Your task to perform on an android device: find photos in the google photos app Image 0: 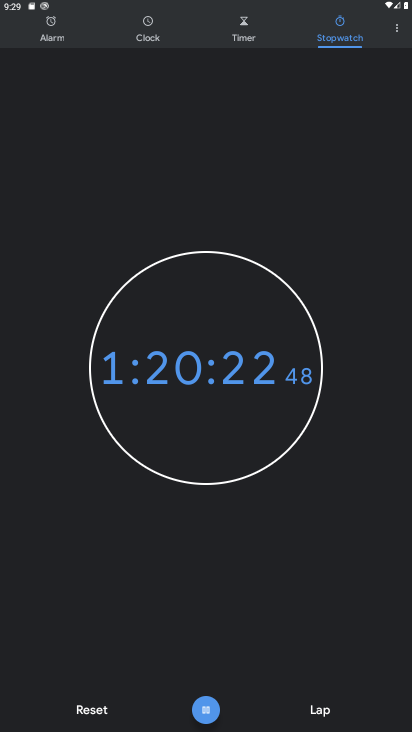
Step 0: press home button
Your task to perform on an android device: find photos in the google photos app Image 1: 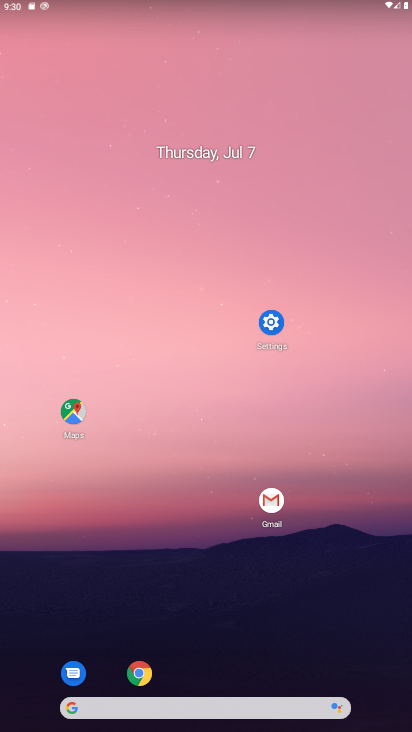
Step 1: drag from (392, 534) to (400, 88)
Your task to perform on an android device: find photos in the google photos app Image 2: 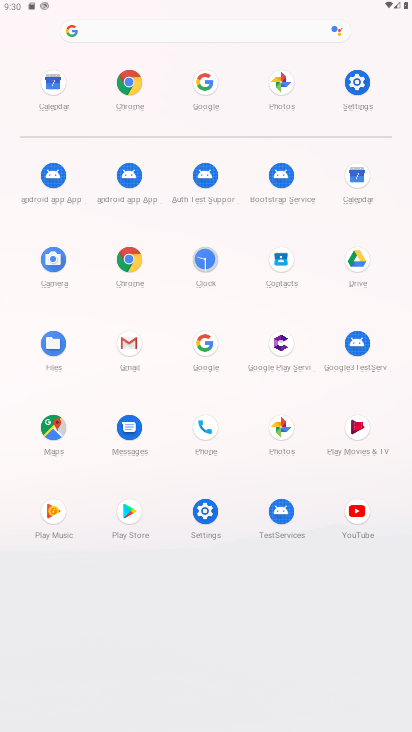
Step 2: click (286, 424)
Your task to perform on an android device: find photos in the google photos app Image 3: 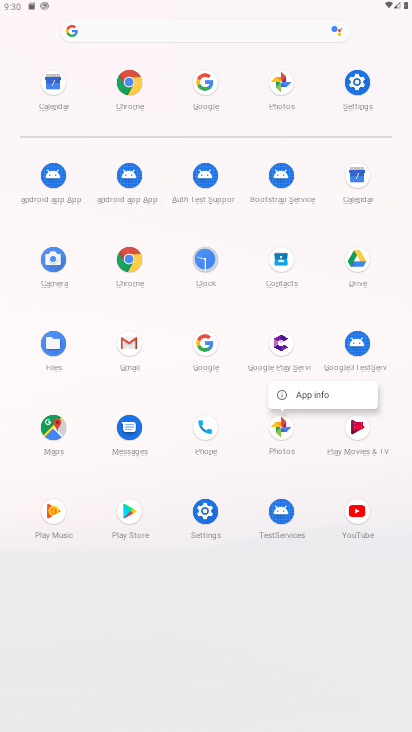
Step 3: click (280, 427)
Your task to perform on an android device: find photos in the google photos app Image 4: 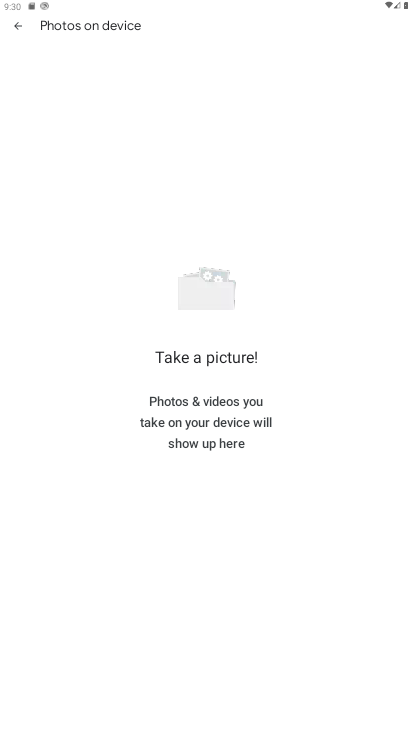
Step 4: click (17, 25)
Your task to perform on an android device: find photos in the google photos app Image 5: 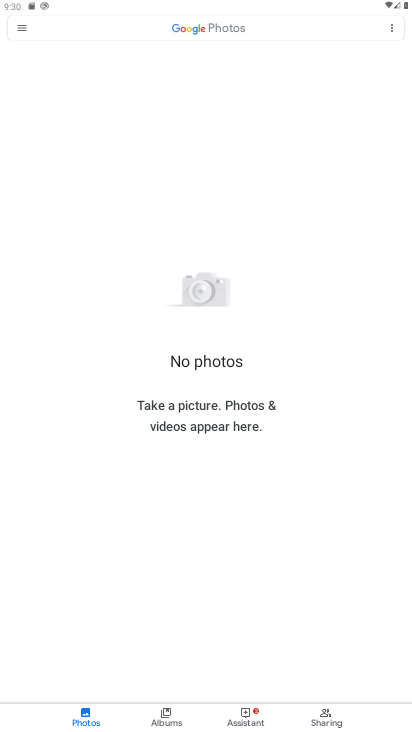
Step 5: click (17, 25)
Your task to perform on an android device: find photos in the google photos app Image 6: 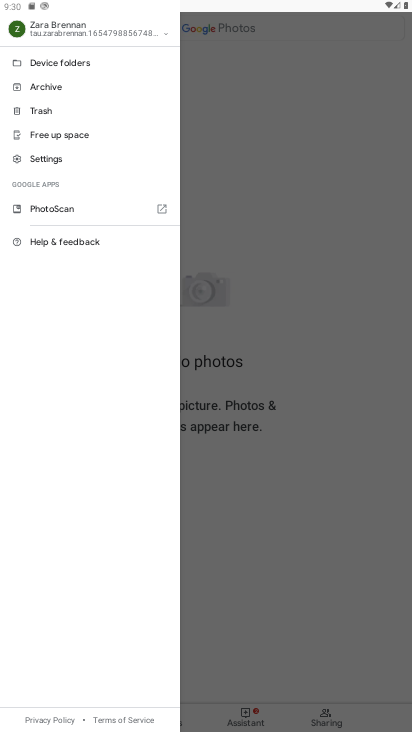
Step 6: click (286, 174)
Your task to perform on an android device: find photos in the google photos app Image 7: 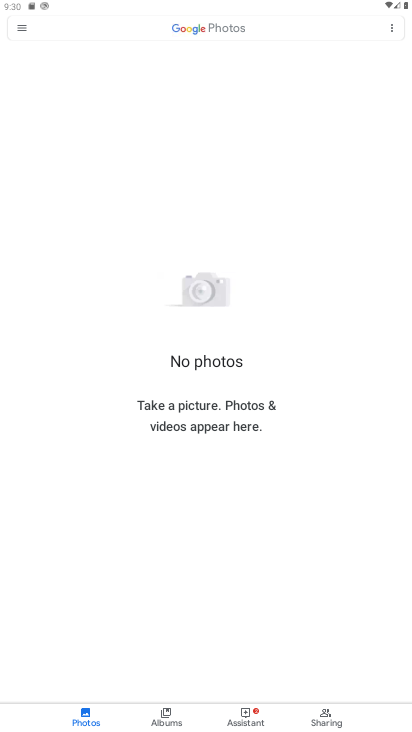
Step 7: click (74, 716)
Your task to perform on an android device: find photos in the google photos app Image 8: 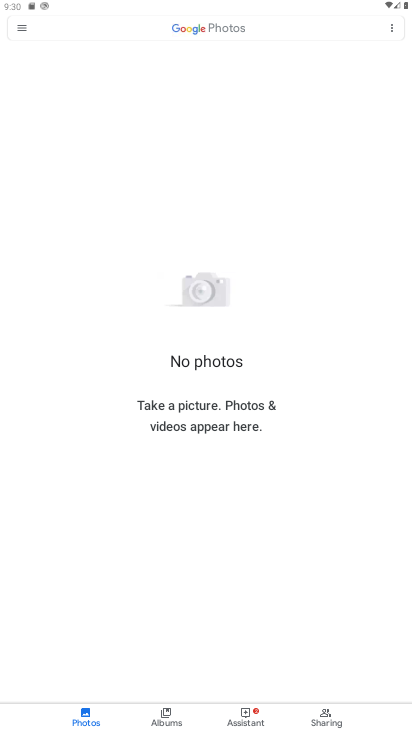
Step 8: click (88, 716)
Your task to perform on an android device: find photos in the google photos app Image 9: 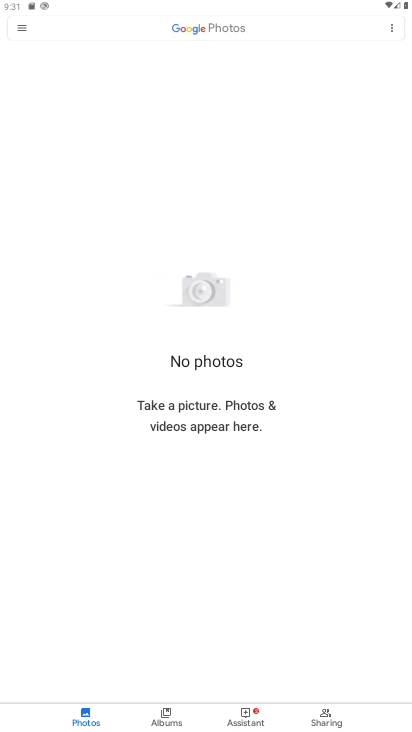
Step 9: task complete